Your task to perform on an android device: Search for Italian restaurants on Maps Image 0: 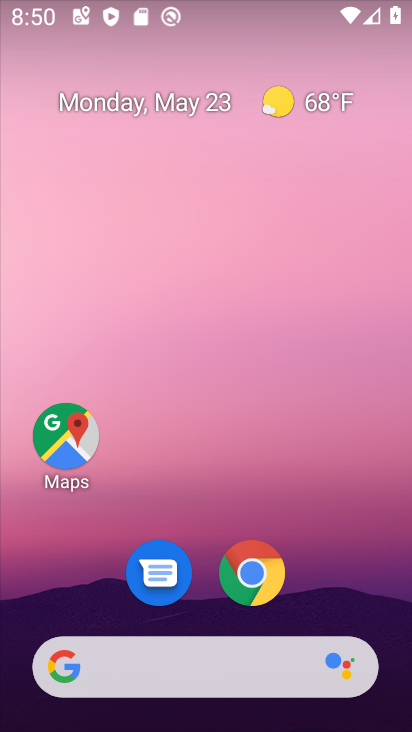
Step 0: drag from (348, 576) to (337, 291)
Your task to perform on an android device: Search for Italian restaurants on Maps Image 1: 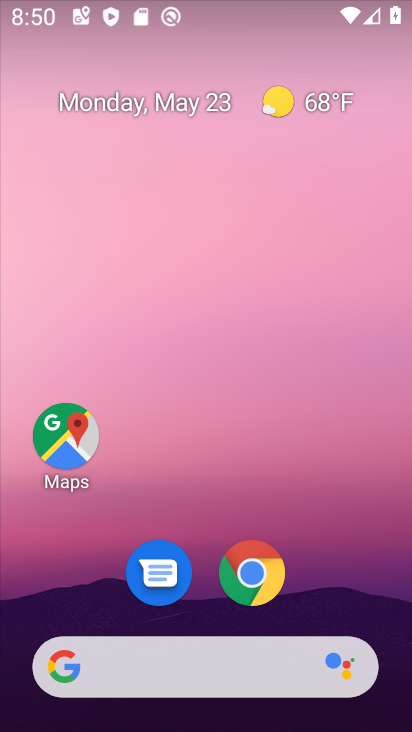
Step 1: drag from (336, 550) to (323, 150)
Your task to perform on an android device: Search for Italian restaurants on Maps Image 2: 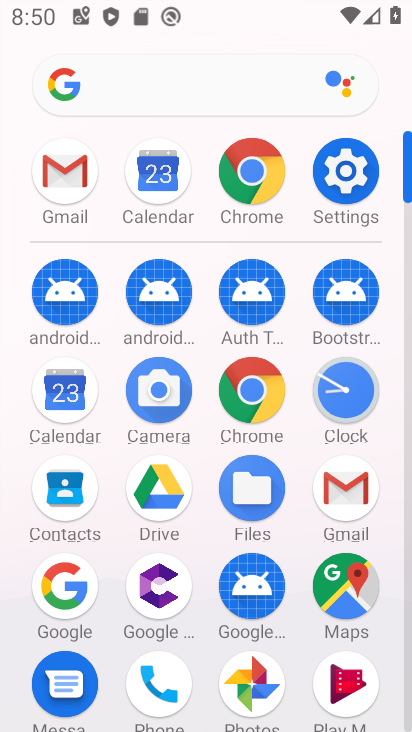
Step 2: click (337, 579)
Your task to perform on an android device: Search for Italian restaurants on Maps Image 3: 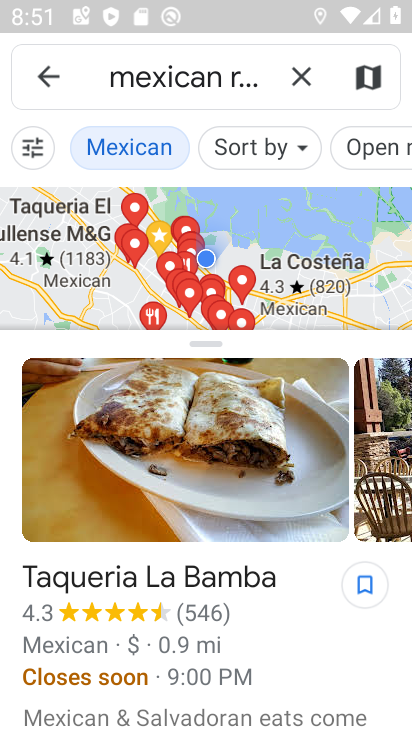
Step 3: click (292, 83)
Your task to perform on an android device: Search for Italian restaurants on Maps Image 4: 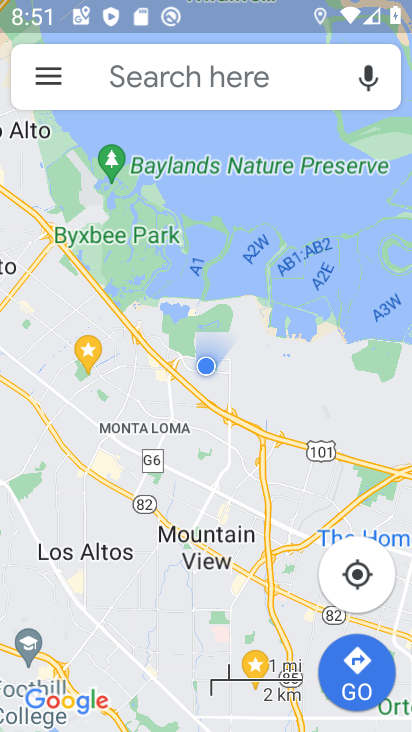
Step 4: click (292, 83)
Your task to perform on an android device: Search for Italian restaurants on Maps Image 5: 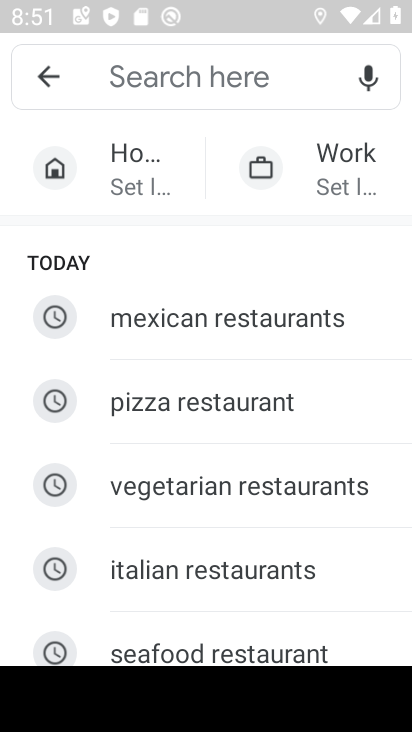
Step 5: click (257, 567)
Your task to perform on an android device: Search for Italian restaurants on Maps Image 6: 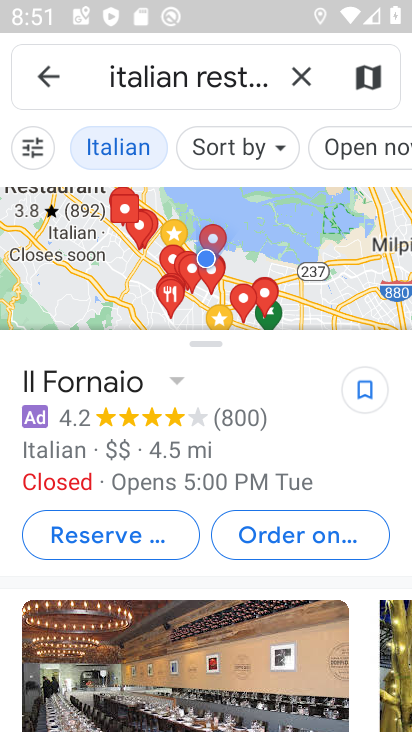
Step 6: task complete